Your task to perform on an android device: Open calendar and show me the fourth week of next month Image 0: 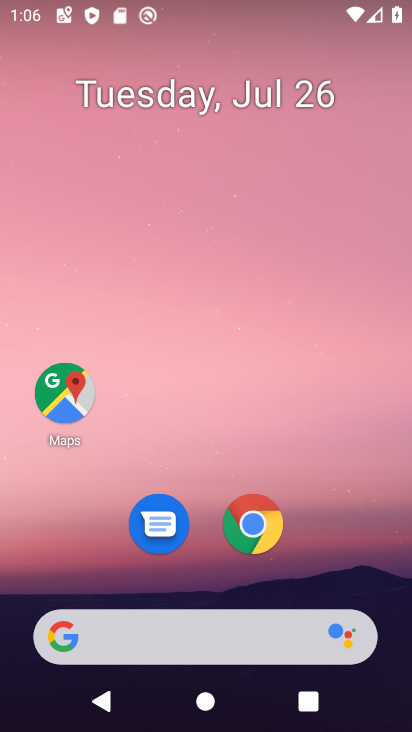
Step 0: drag from (342, 571) to (310, 80)
Your task to perform on an android device: Open calendar and show me the fourth week of next month Image 1: 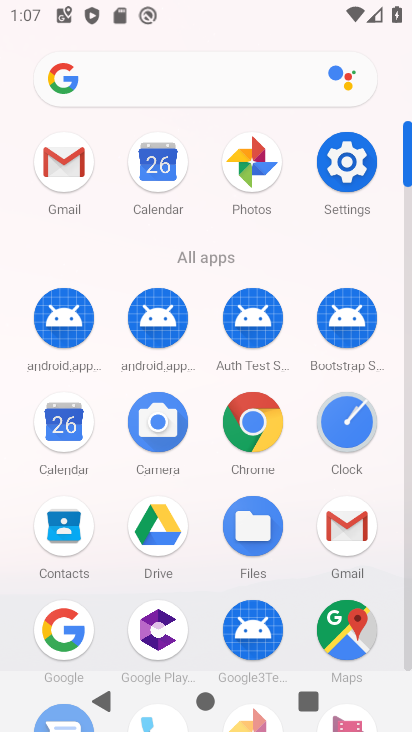
Step 1: click (164, 169)
Your task to perform on an android device: Open calendar and show me the fourth week of next month Image 2: 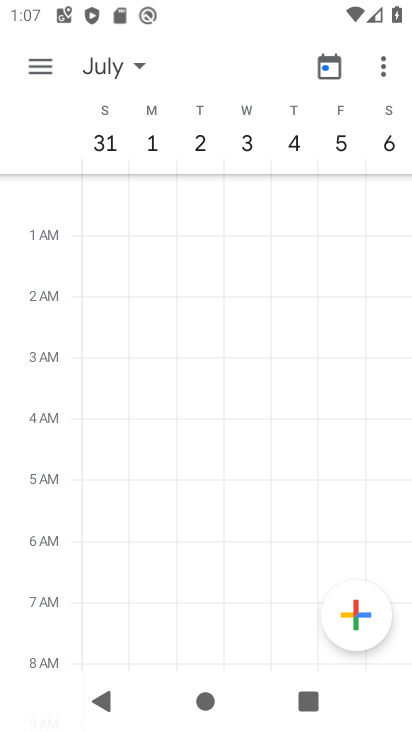
Step 2: task complete